Your task to perform on an android device: Is it going to rain today? Image 0: 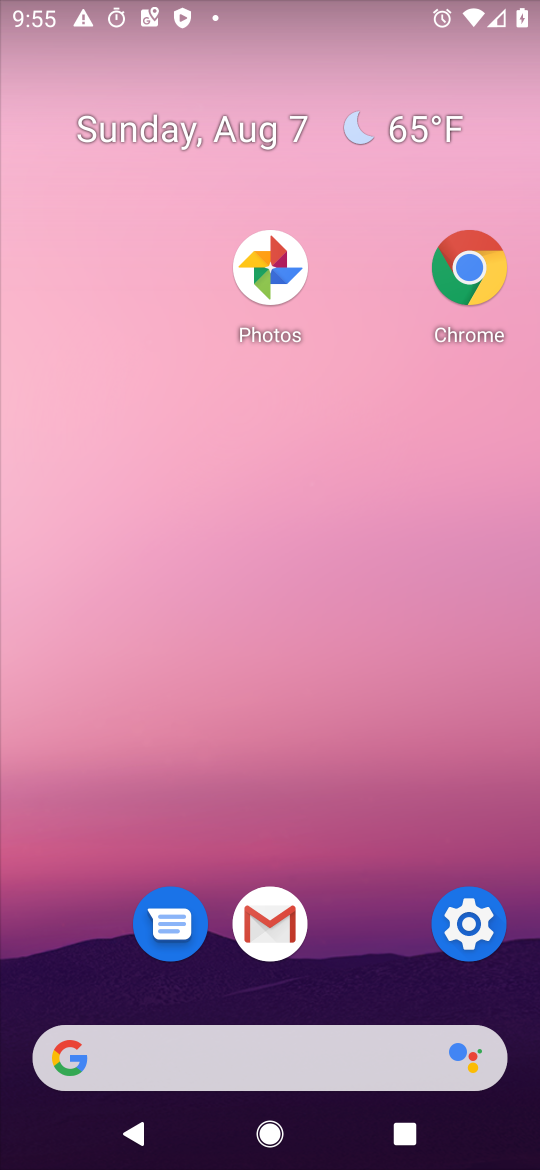
Step 0: press home button
Your task to perform on an android device: Is it going to rain today? Image 1: 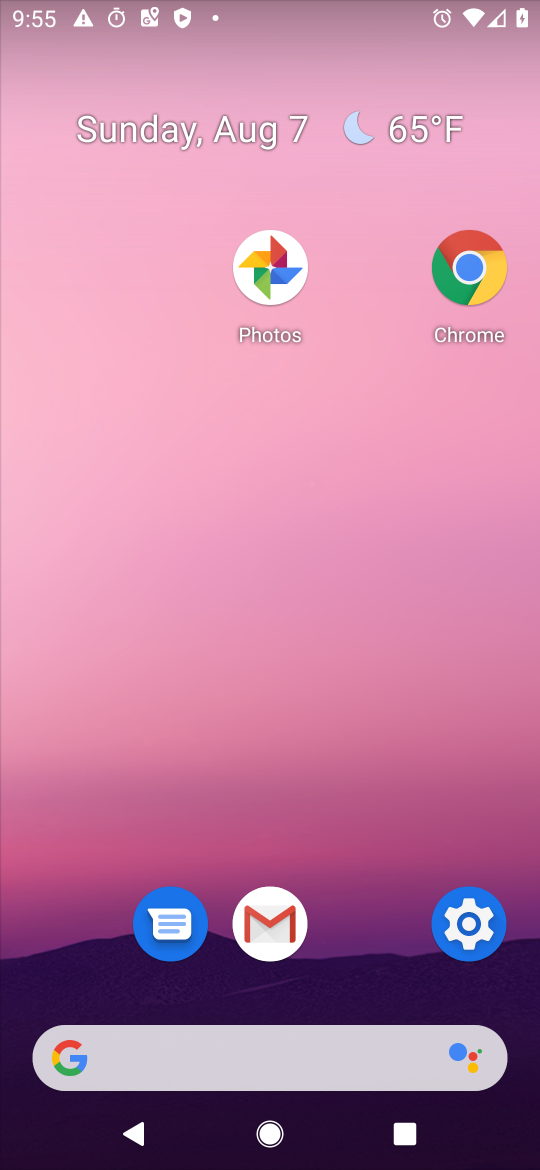
Step 1: click (215, 1074)
Your task to perform on an android device: Is it going to rain today? Image 2: 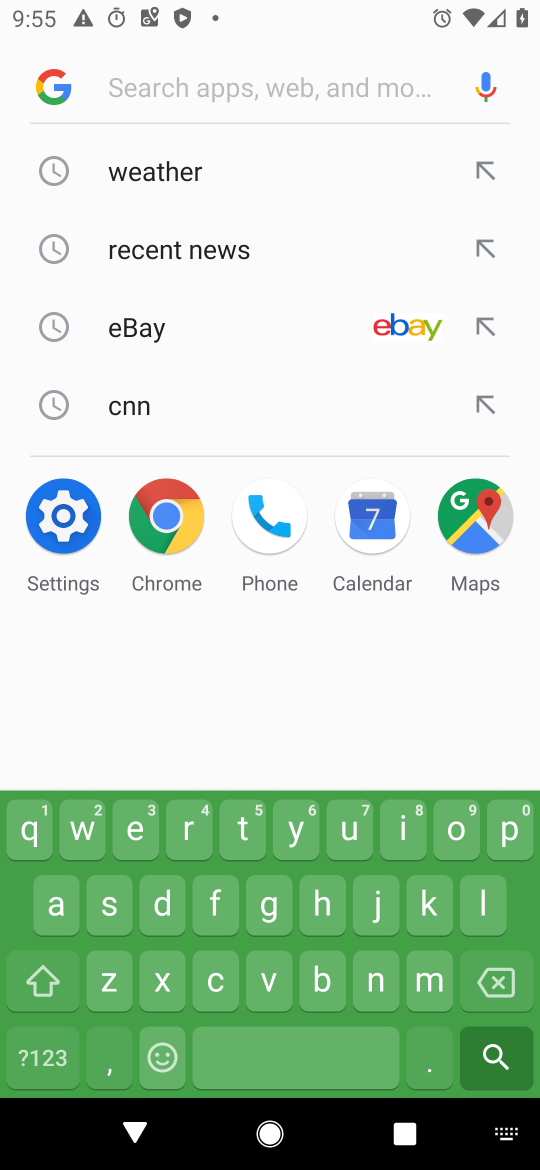
Step 2: click (406, 832)
Your task to perform on an android device: Is it going to rain today? Image 3: 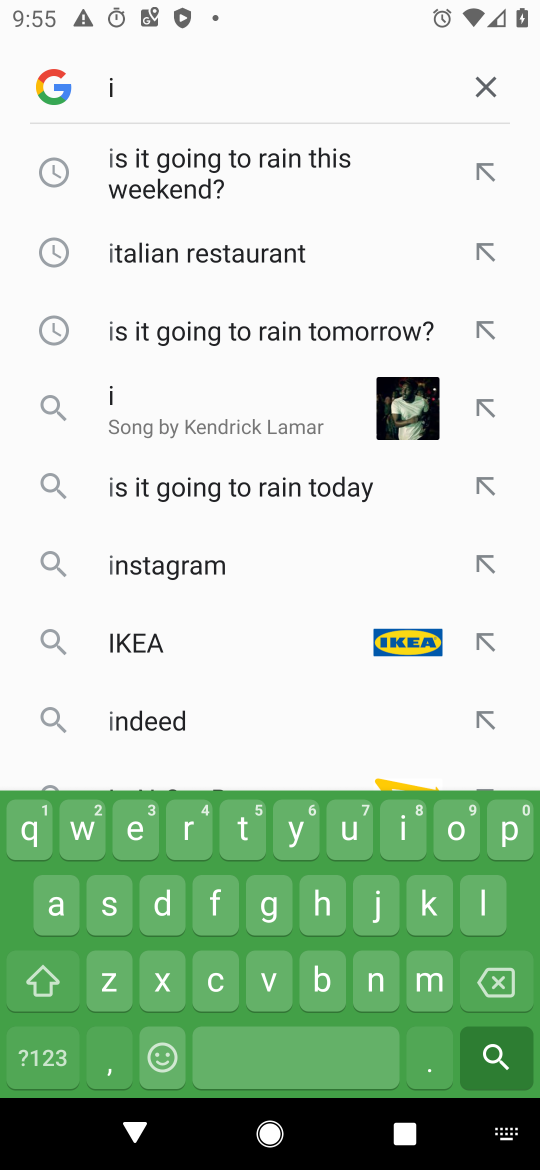
Step 3: click (190, 492)
Your task to perform on an android device: Is it going to rain today? Image 4: 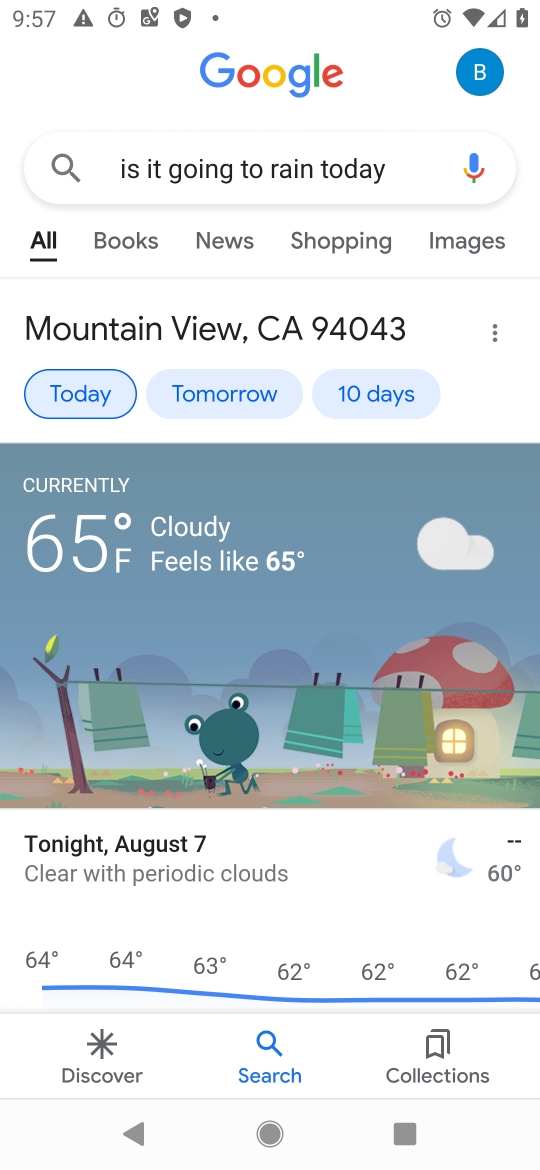
Step 4: task complete